Your task to perform on an android device: Search for seafood restaurants on Google Maps Image 0: 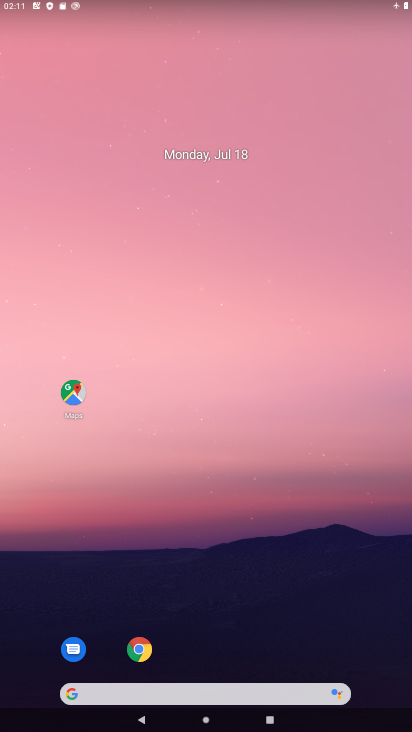
Step 0: click (71, 390)
Your task to perform on an android device: Search for seafood restaurants on Google Maps Image 1: 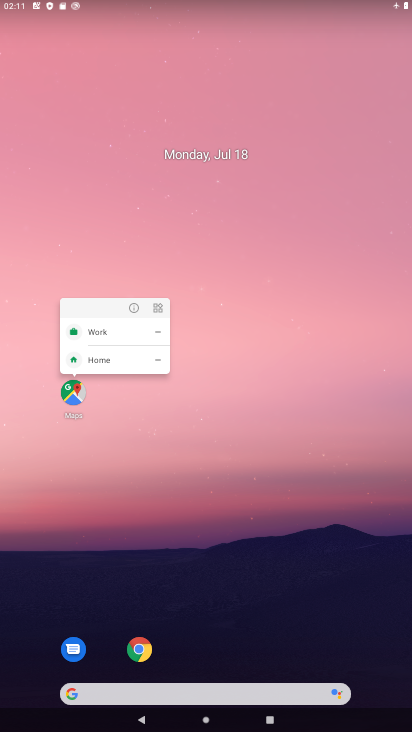
Step 1: click (71, 390)
Your task to perform on an android device: Search for seafood restaurants on Google Maps Image 2: 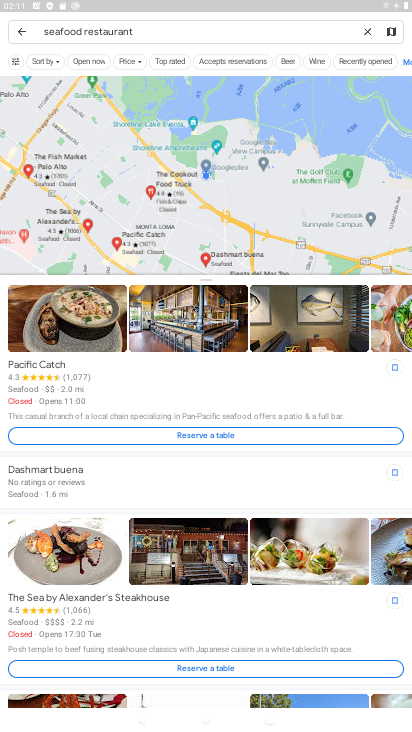
Step 2: task complete